Your task to perform on an android device: turn on airplane mode Image 0: 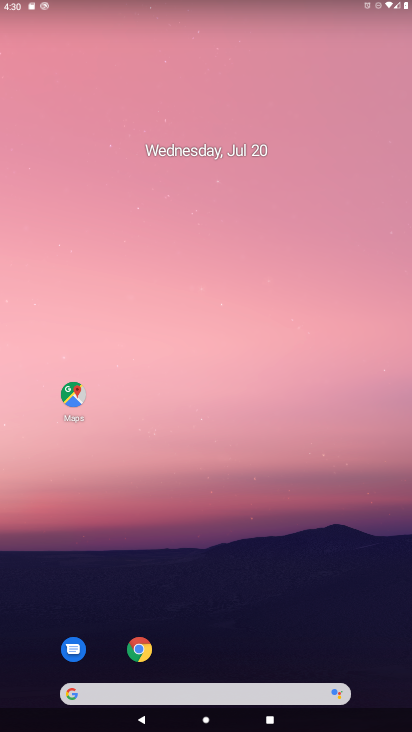
Step 0: drag from (182, 697) to (224, 161)
Your task to perform on an android device: turn on airplane mode Image 1: 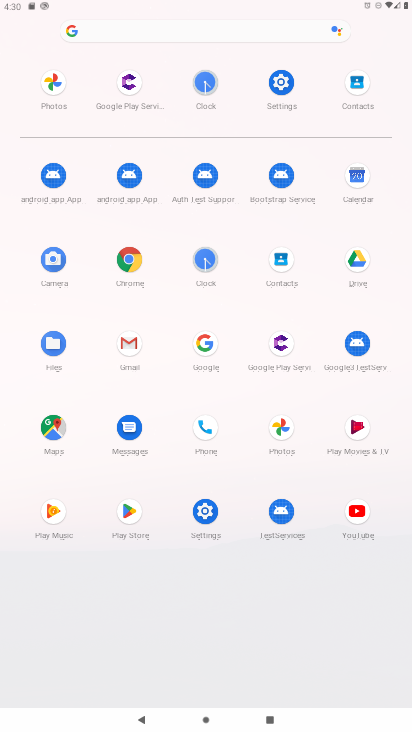
Step 1: click (205, 509)
Your task to perform on an android device: turn on airplane mode Image 2: 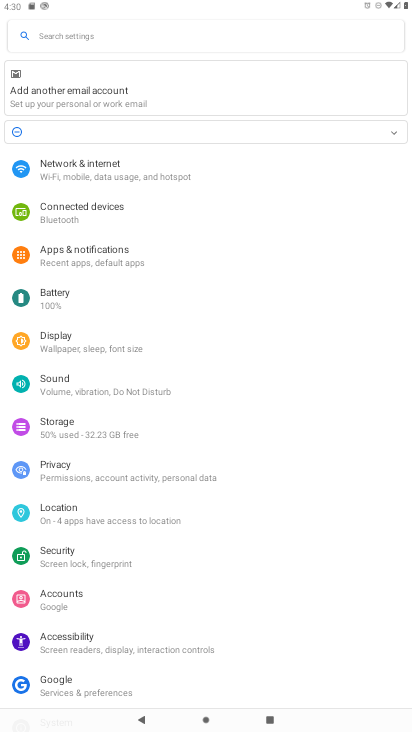
Step 2: click (126, 170)
Your task to perform on an android device: turn on airplane mode Image 3: 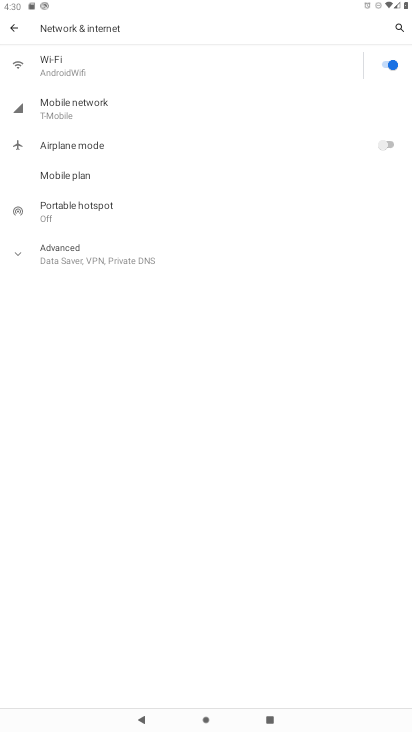
Step 3: click (382, 143)
Your task to perform on an android device: turn on airplane mode Image 4: 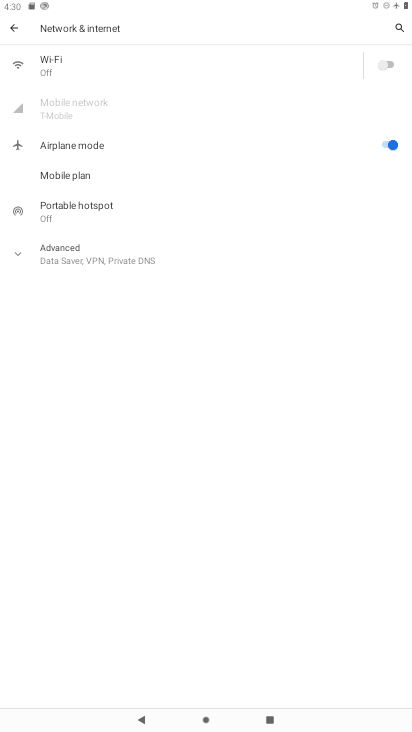
Step 4: task complete